Your task to perform on an android device: turn smart compose on in the gmail app Image 0: 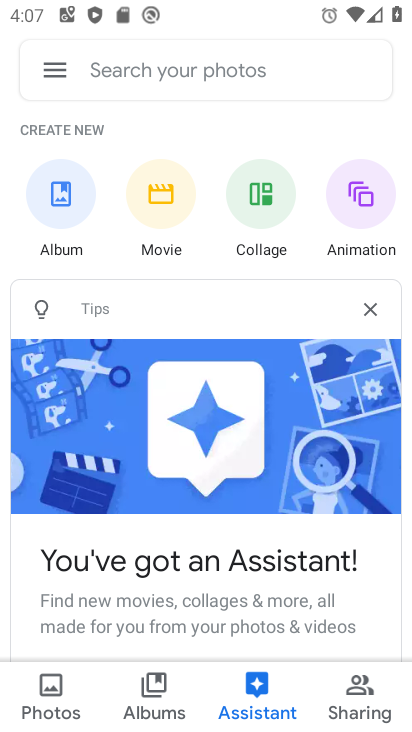
Step 0: press home button
Your task to perform on an android device: turn smart compose on in the gmail app Image 1: 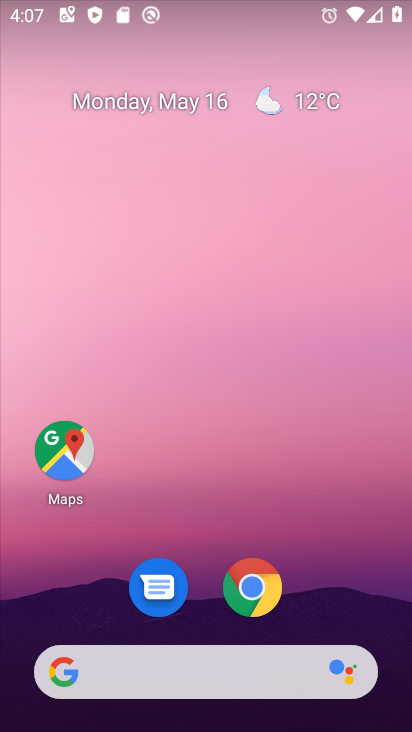
Step 1: drag from (399, 686) to (382, 178)
Your task to perform on an android device: turn smart compose on in the gmail app Image 2: 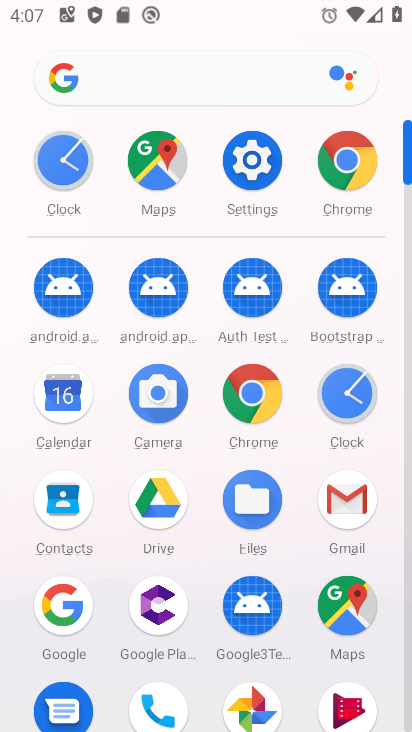
Step 2: click (363, 493)
Your task to perform on an android device: turn smart compose on in the gmail app Image 3: 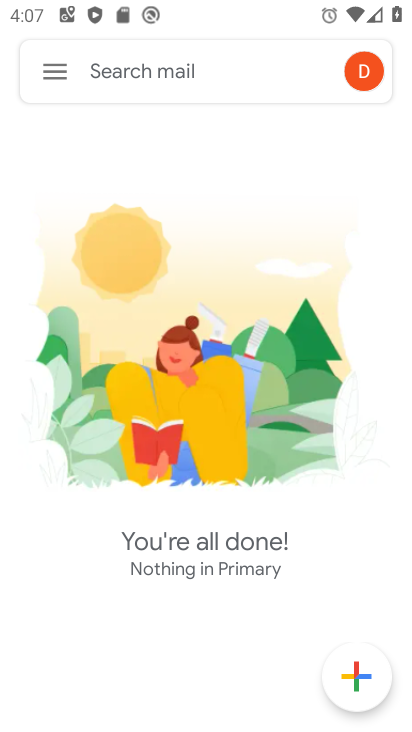
Step 3: click (51, 76)
Your task to perform on an android device: turn smart compose on in the gmail app Image 4: 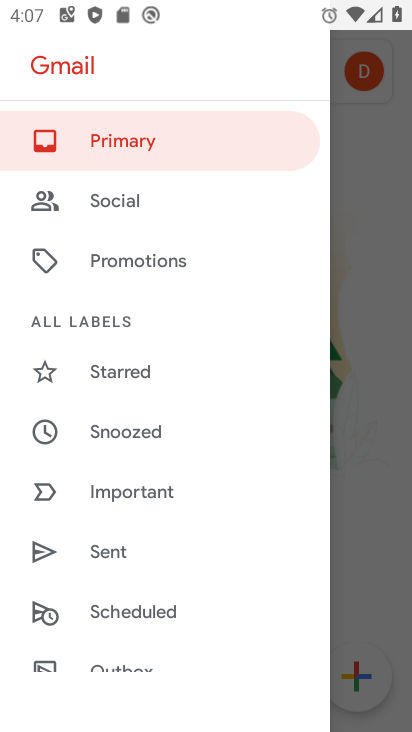
Step 4: drag from (265, 599) to (310, 427)
Your task to perform on an android device: turn smart compose on in the gmail app Image 5: 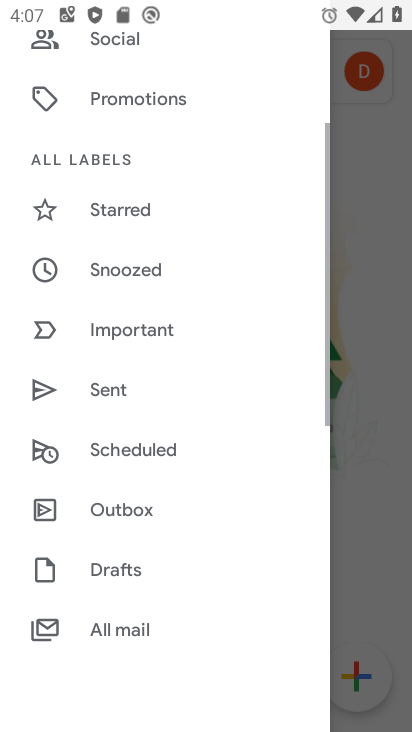
Step 5: drag from (272, 545) to (312, 316)
Your task to perform on an android device: turn smart compose on in the gmail app Image 6: 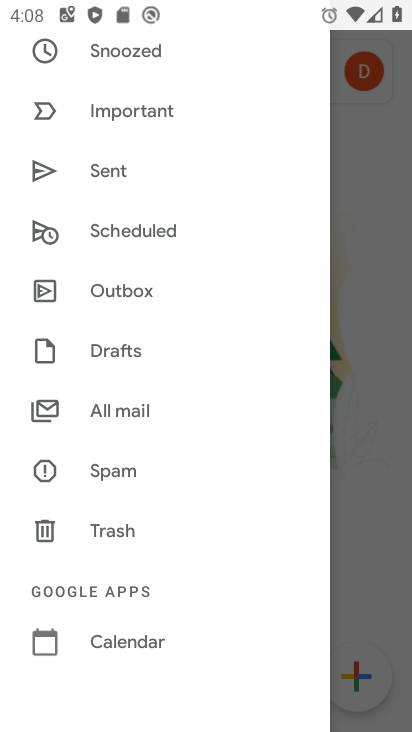
Step 6: drag from (241, 619) to (275, 309)
Your task to perform on an android device: turn smart compose on in the gmail app Image 7: 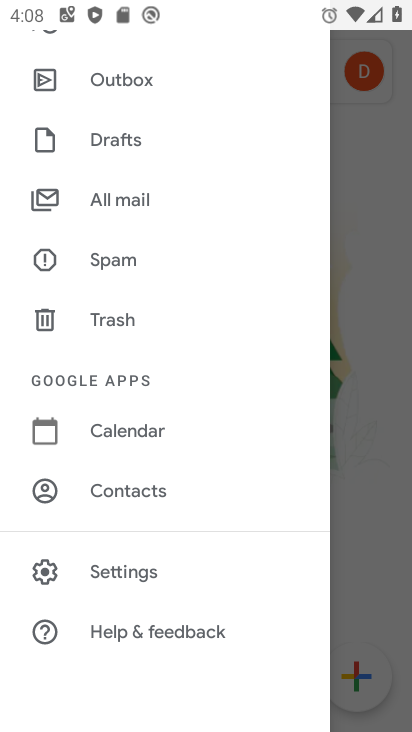
Step 7: click (91, 563)
Your task to perform on an android device: turn smart compose on in the gmail app Image 8: 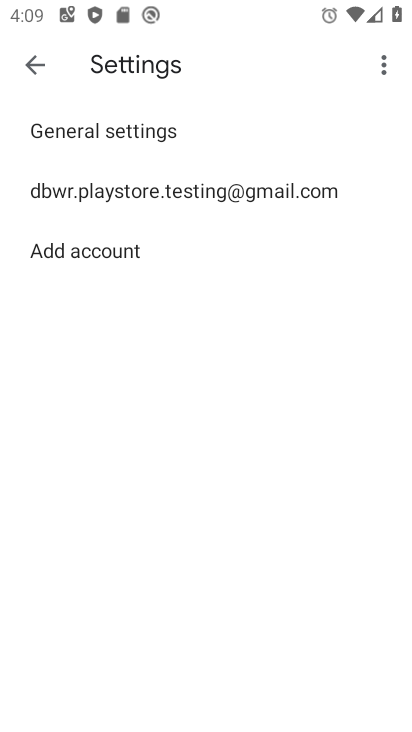
Step 8: click (92, 191)
Your task to perform on an android device: turn smart compose on in the gmail app Image 9: 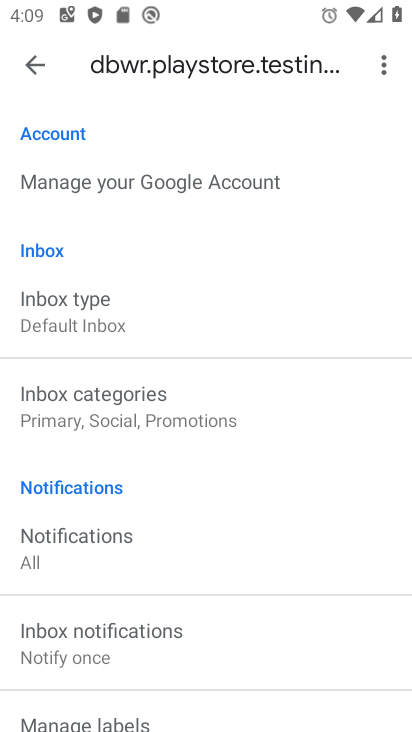
Step 9: task complete